Your task to perform on an android device: How much does a 3 bedroom apartment rent for in Chicago? Image 0: 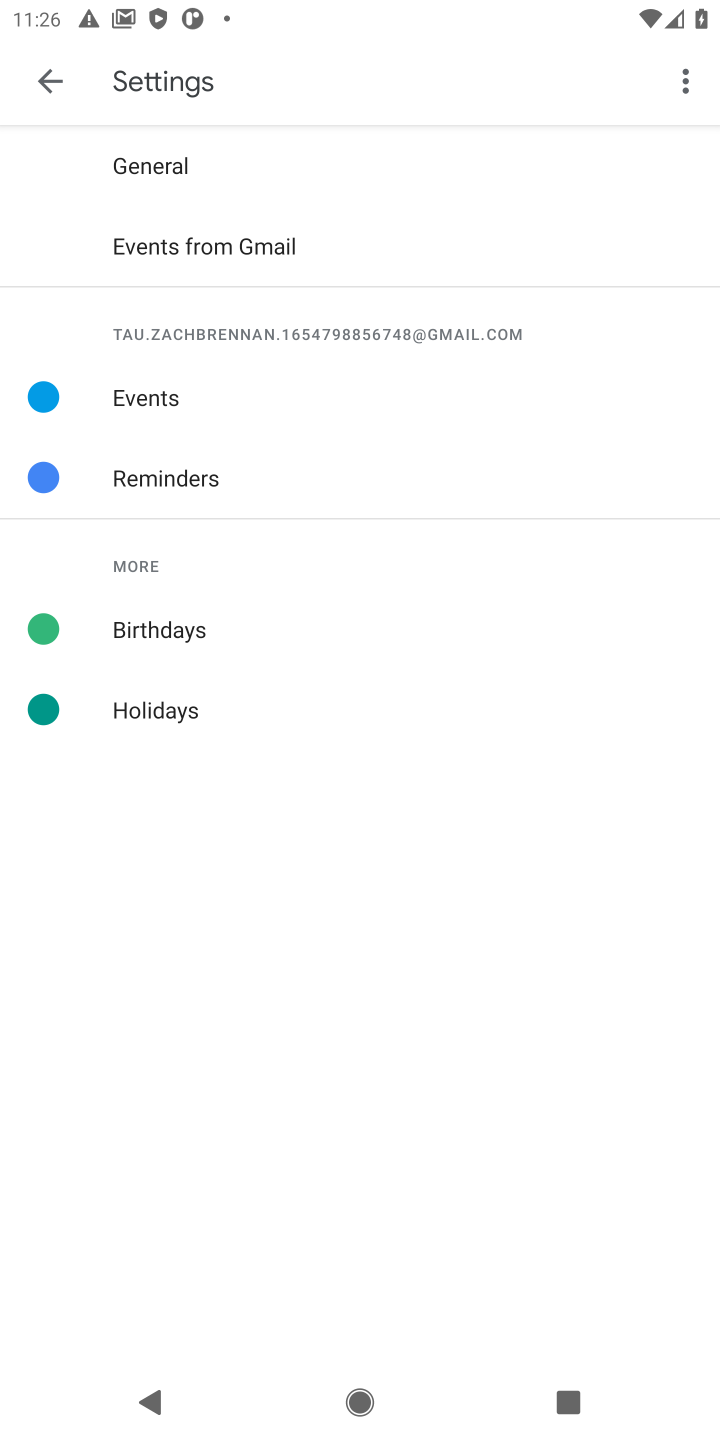
Step 0: press home button
Your task to perform on an android device: How much does a 3 bedroom apartment rent for in Chicago? Image 1: 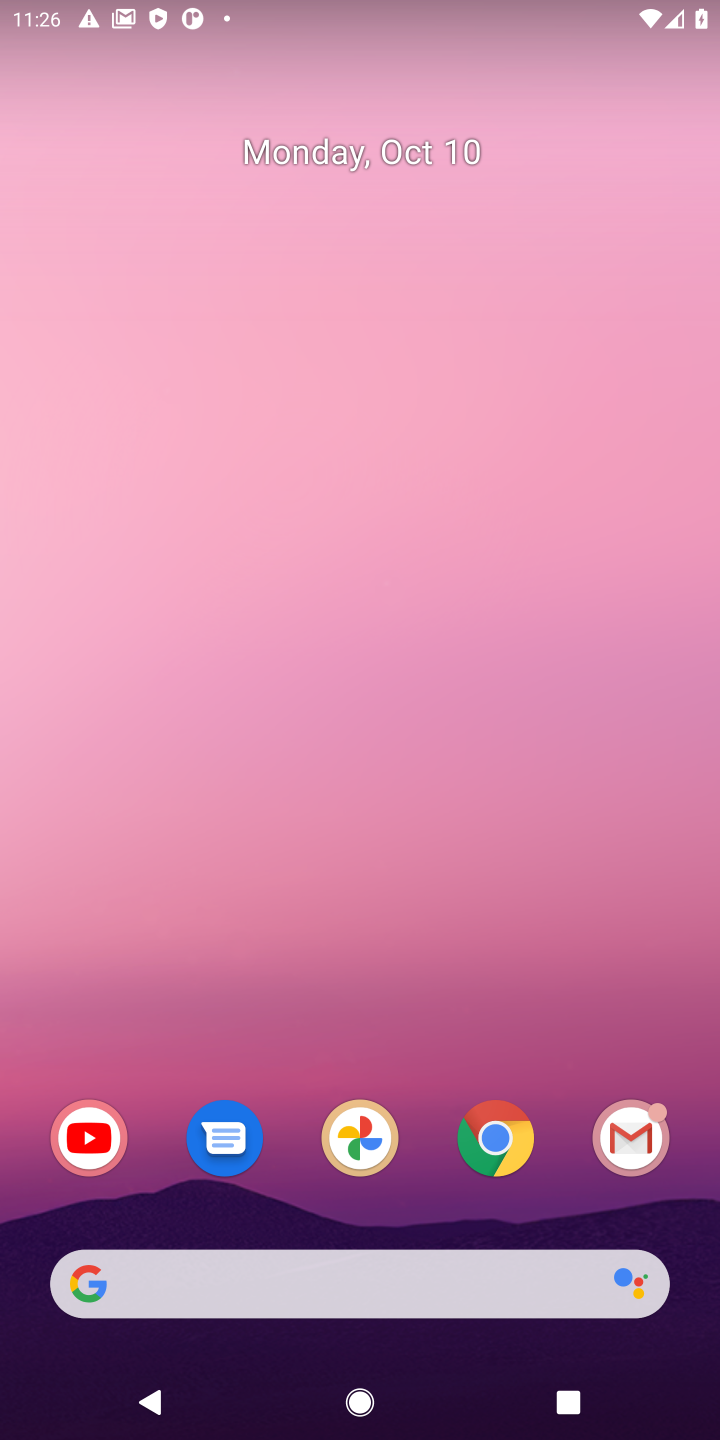
Step 1: click (84, 1281)
Your task to perform on an android device: How much does a 3 bedroom apartment rent for in Chicago? Image 2: 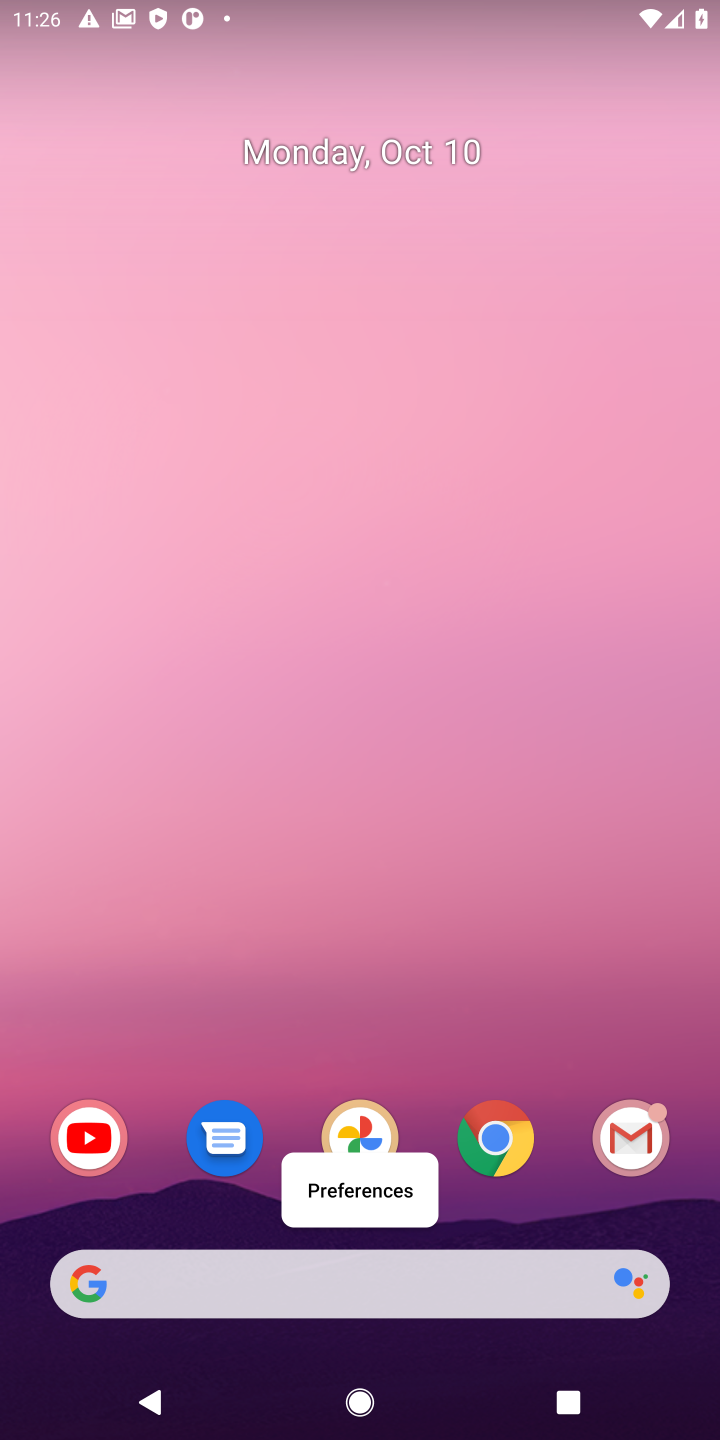
Step 2: click (93, 1293)
Your task to perform on an android device: How much does a 3 bedroom apartment rent for in Chicago? Image 3: 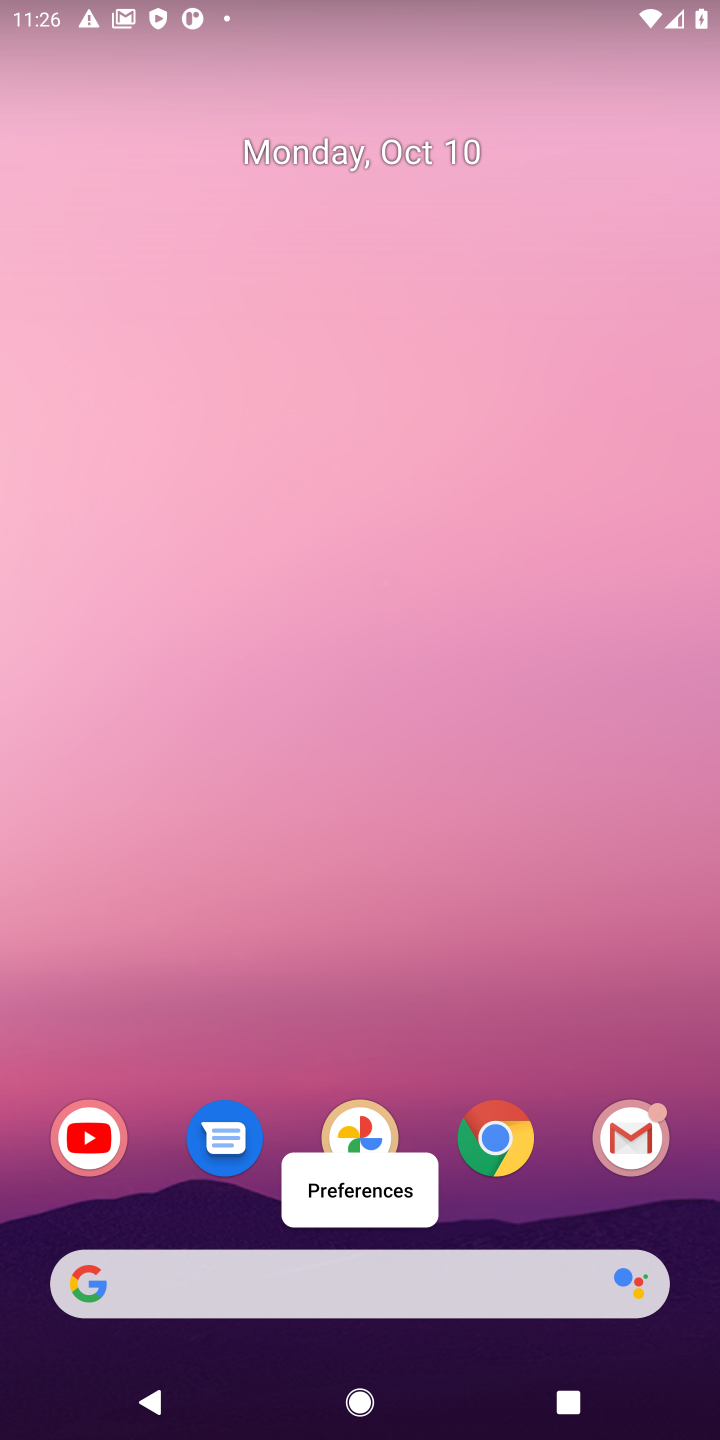
Step 3: click (80, 1295)
Your task to perform on an android device: How much does a 3 bedroom apartment rent for in Chicago? Image 4: 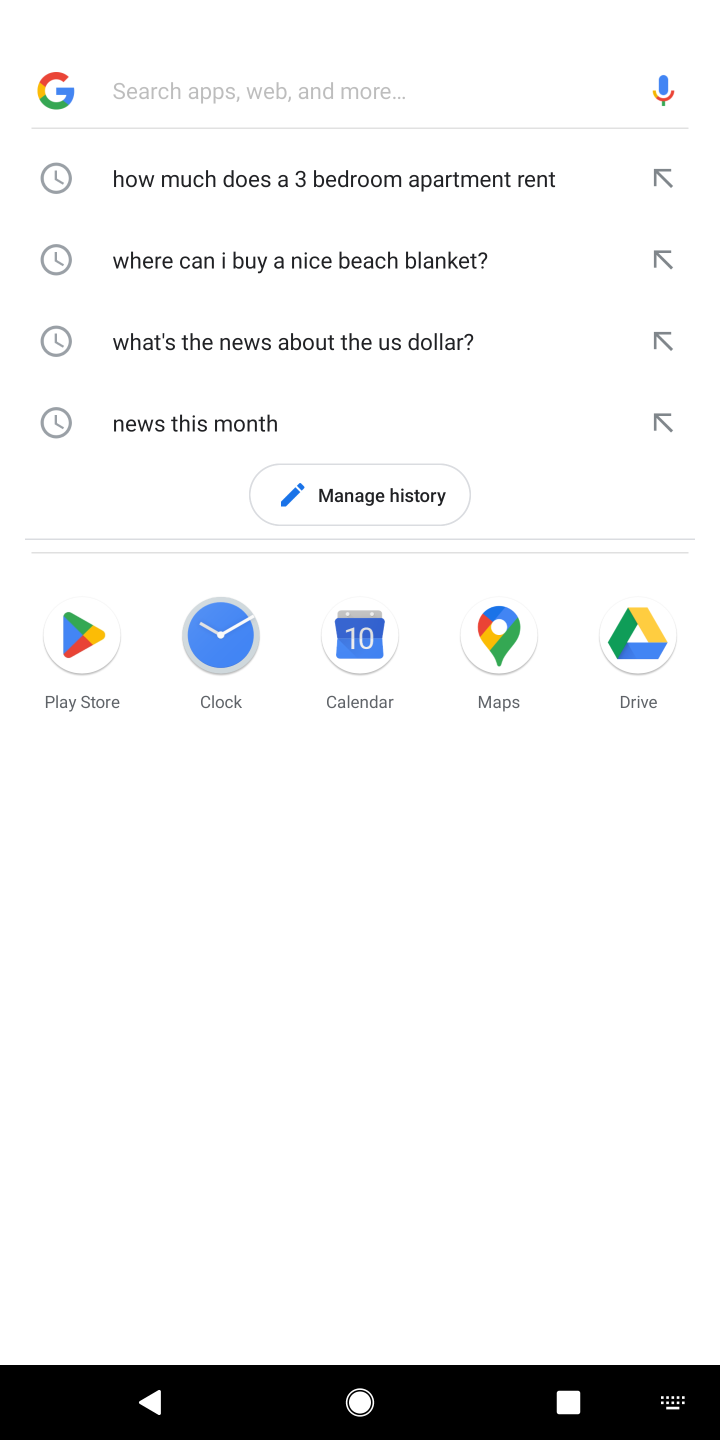
Step 4: type "How much does a 3 bedroom apartment rent for in Chicago?"
Your task to perform on an android device: How much does a 3 bedroom apartment rent for in Chicago? Image 5: 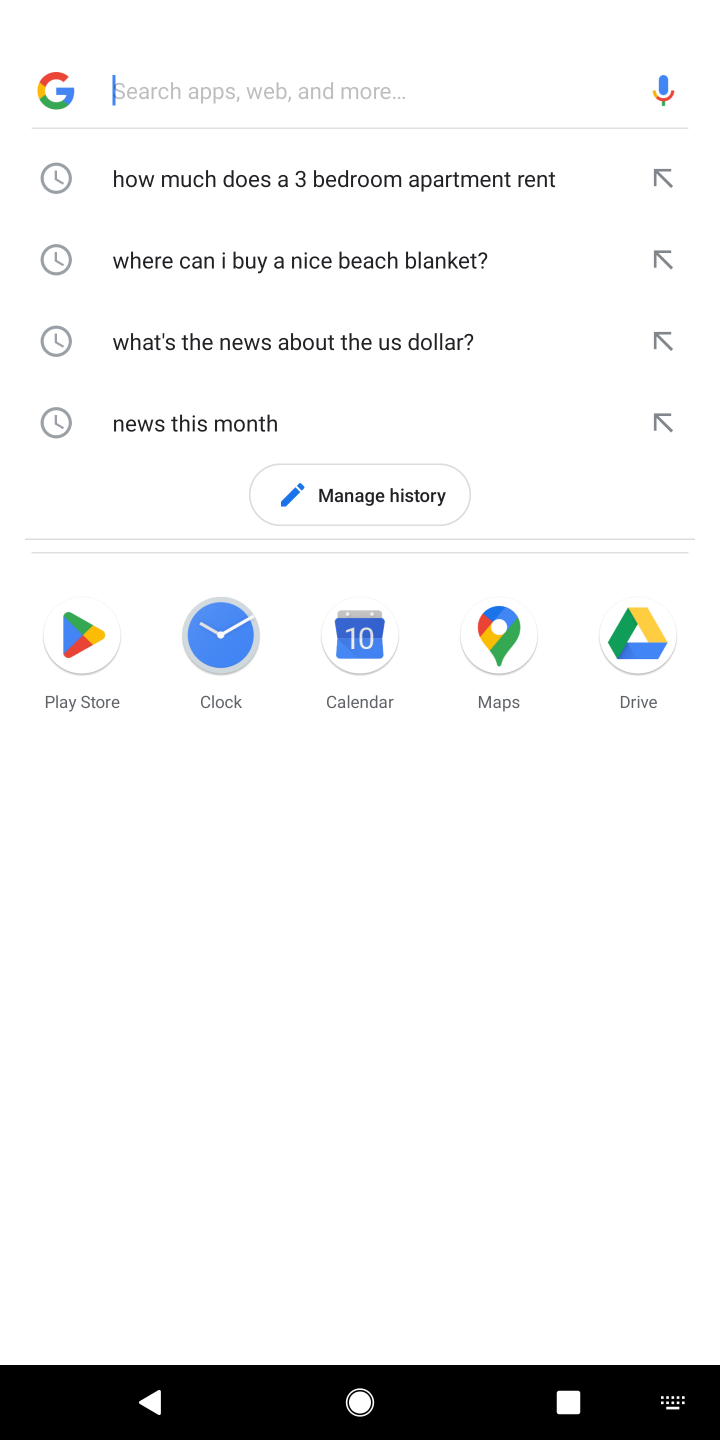
Step 5: drag from (213, 78) to (386, 96)
Your task to perform on an android device: How much does a 3 bedroom apartment rent for in Chicago? Image 6: 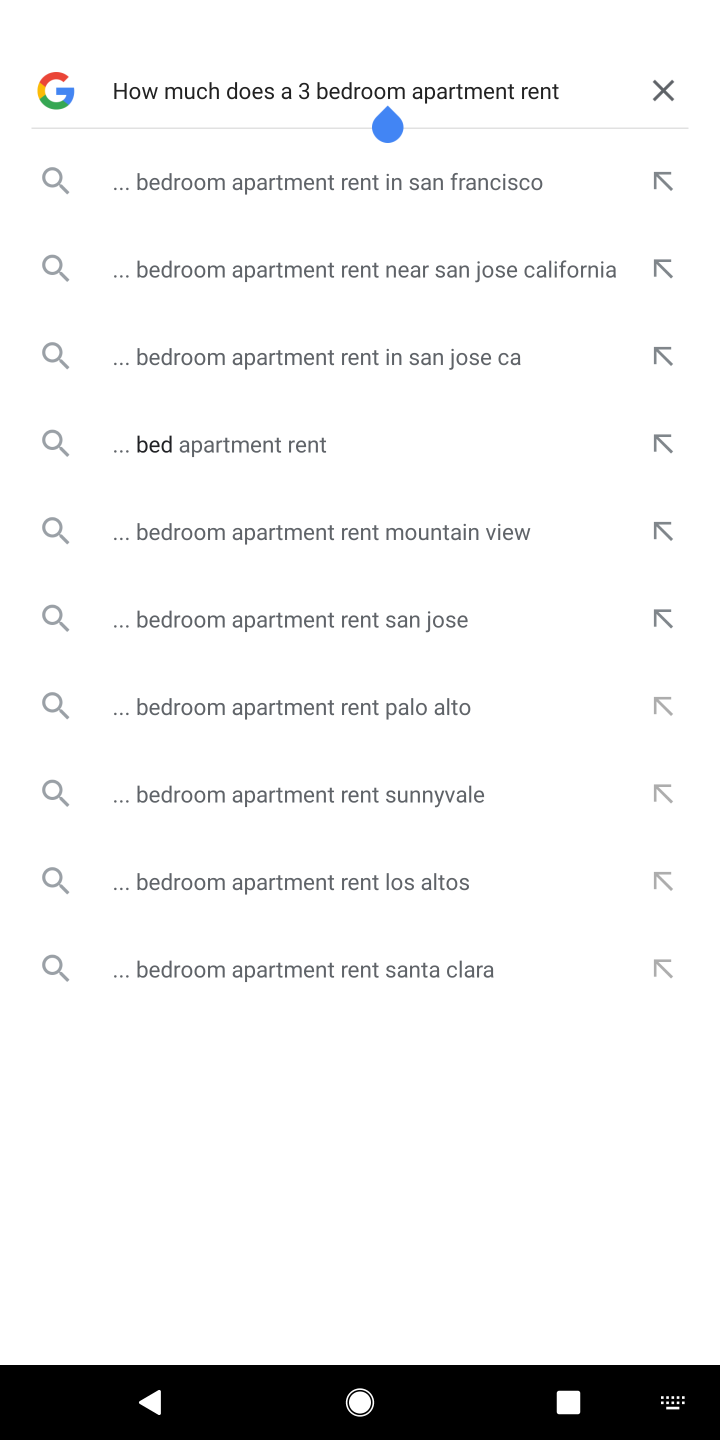
Step 6: press enter
Your task to perform on an android device: How much does a 3 bedroom apartment rent for in Chicago? Image 7: 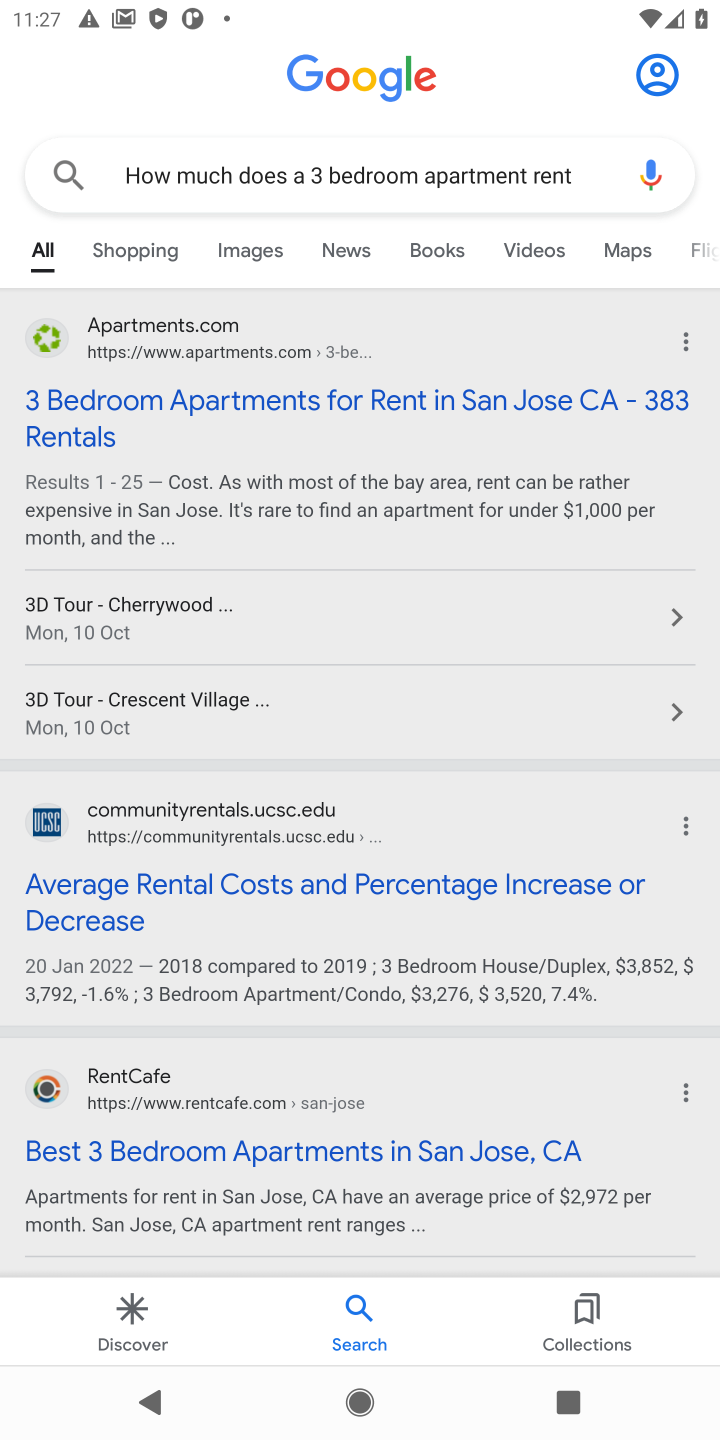
Step 7: task complete